Your task to perform on an android device: turn on improve location accuracy Image 0: 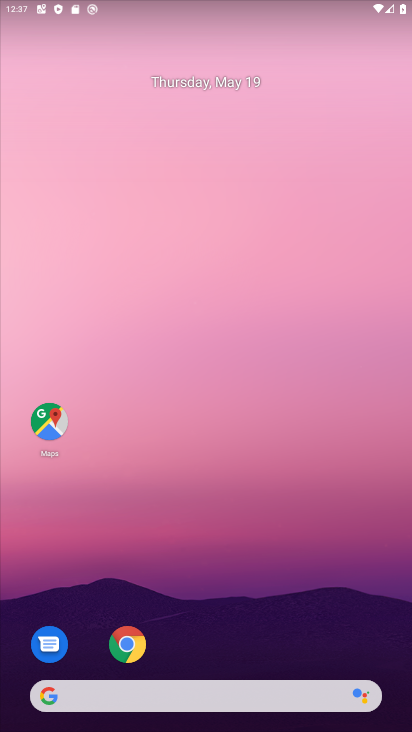
Step 0: drag from (388, 613) to (395, 219)
Your task to perform on an android device: turn on improve location accuracy Image 1: 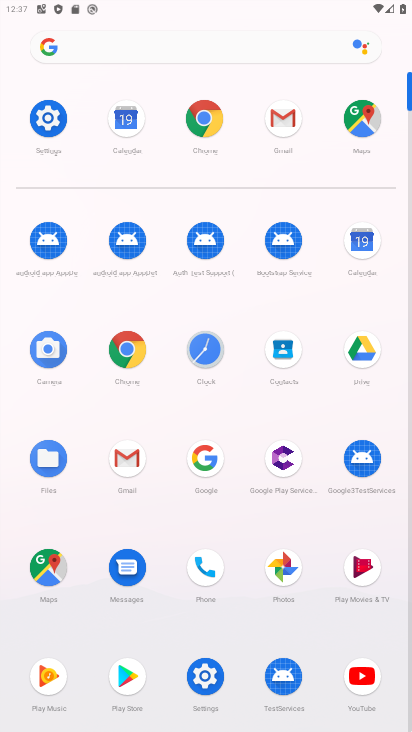
Step 1: click (197, 682)
Your task to perform on an android device: turn on improve location accuracy Image 2: 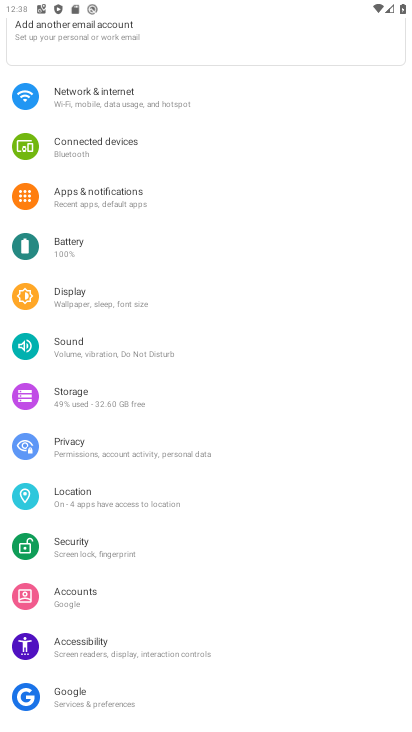
Step 2: click (95, 491)
Your task to perform on an android device: turn on improve location accuracy Image 3: 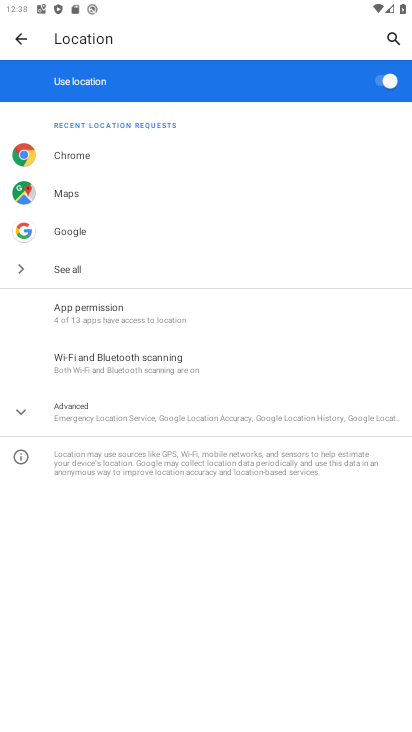
Step 3: click (118, 403)
Your task to perform on an android device: turn on improve location accuracy Image 4: 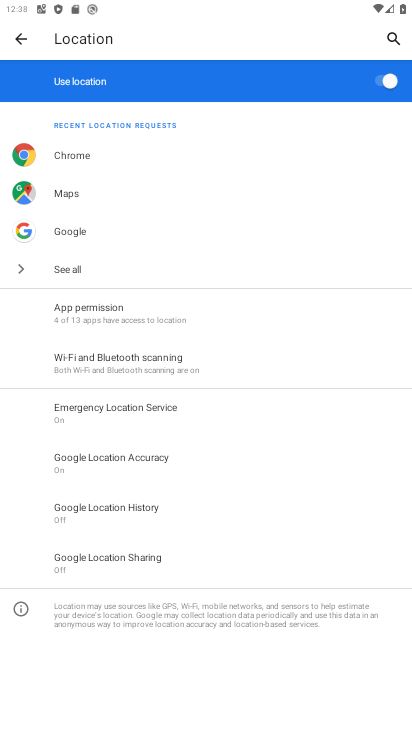
Step 4: click (143, 461)
Your task to perform on an android device: turn on improve location accuracy Image 5: 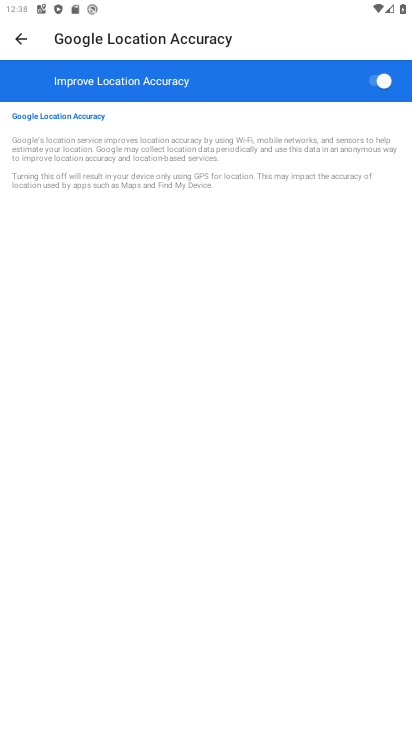
Step 5: task complete